Your task to perform on an android device: Look up the best rated 5.1 home theater speakers on Walmart. Image 0: 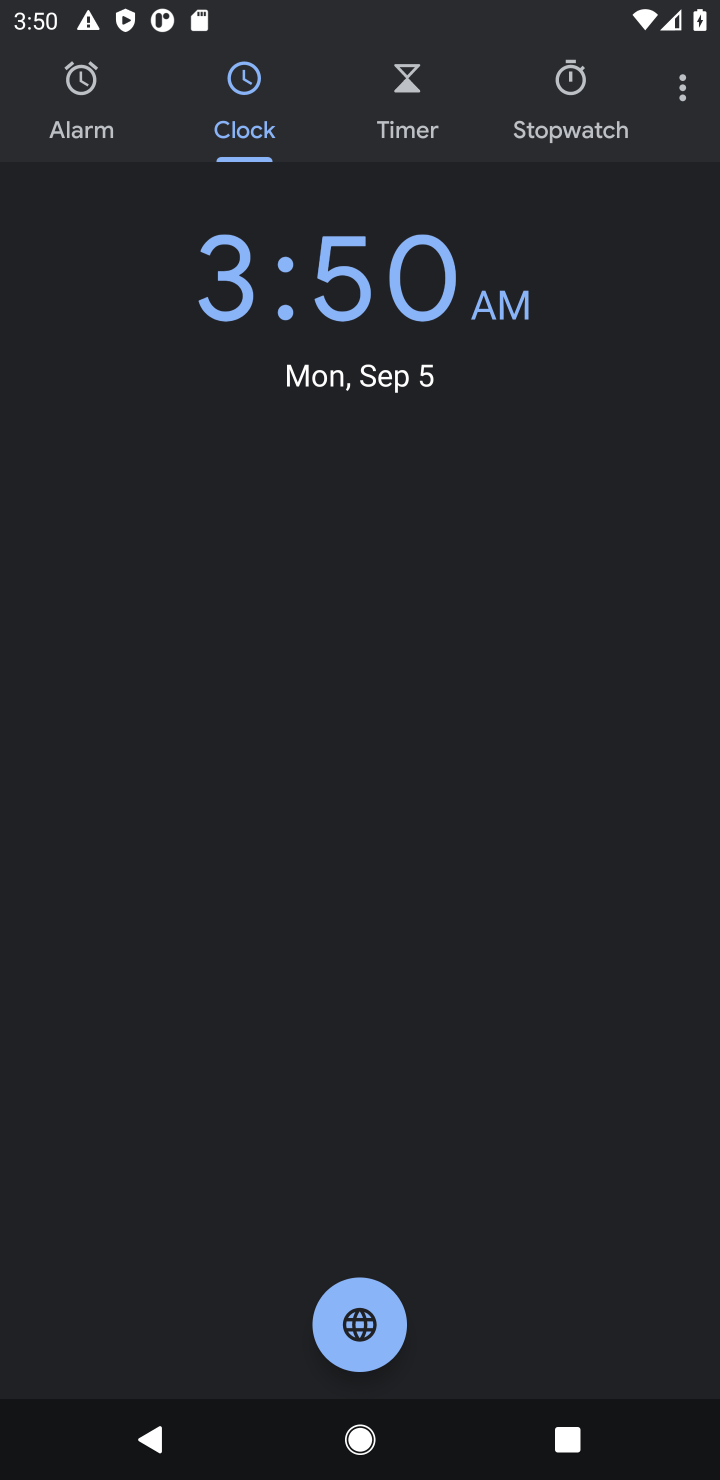
Step 0: press home button
Your task to perform on an android device: Look up the best rated 5.1 home theater speakers on Walmart. Image 1: 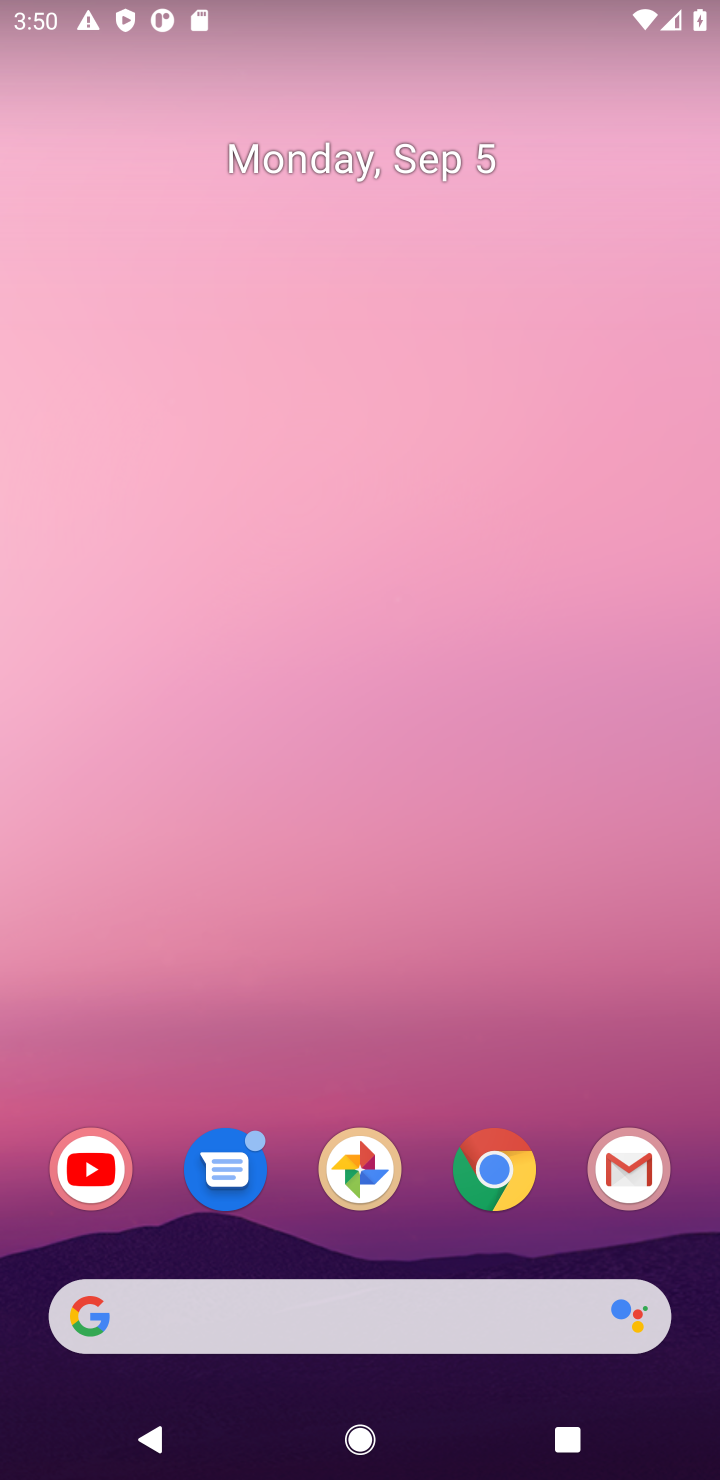
Step 1: click (505, 1170)
Your task to perform on an android device: Look up the best rated 5.1 home theater speakers on Walmart. Image 2: 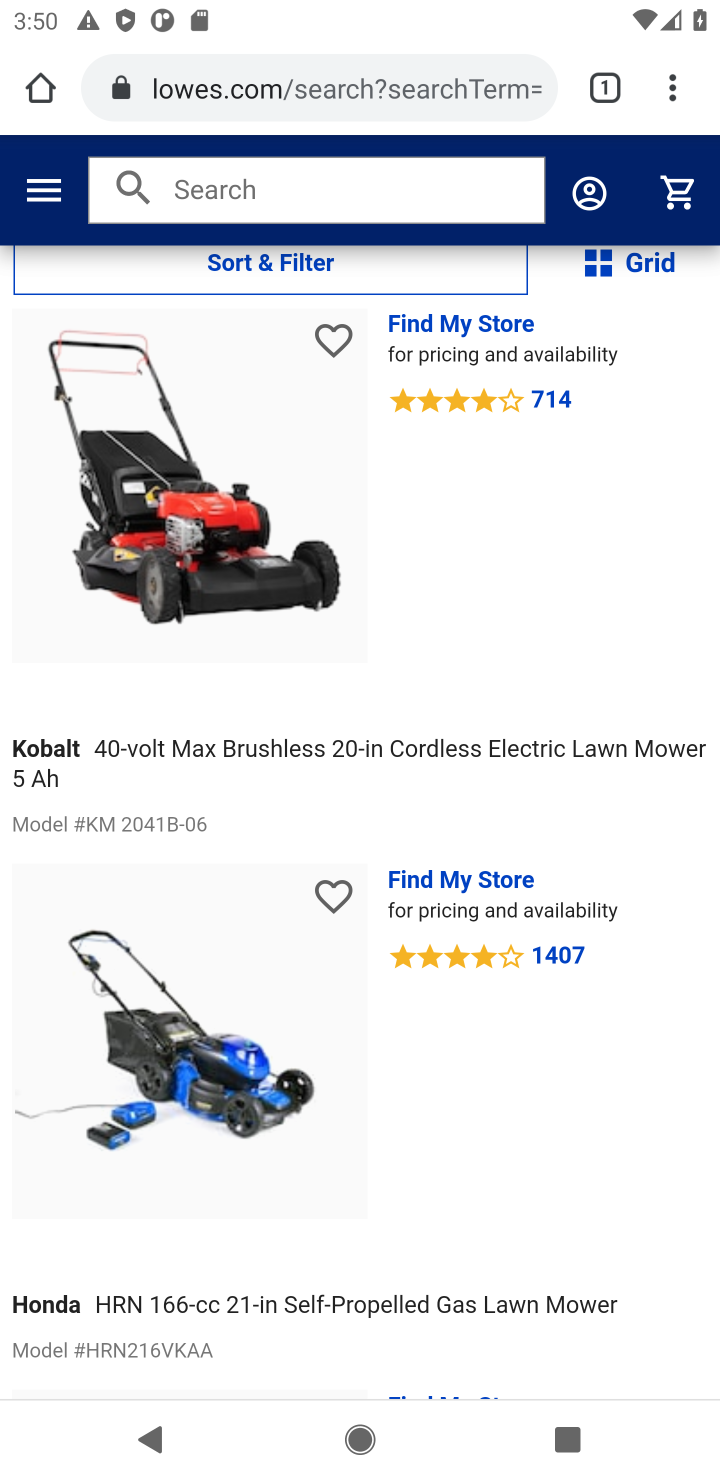
Step 2: click (301, 99)
Your task to perform on an android device: Look up the best rated 5.1 home theater speakers on Walmart. Image 3: 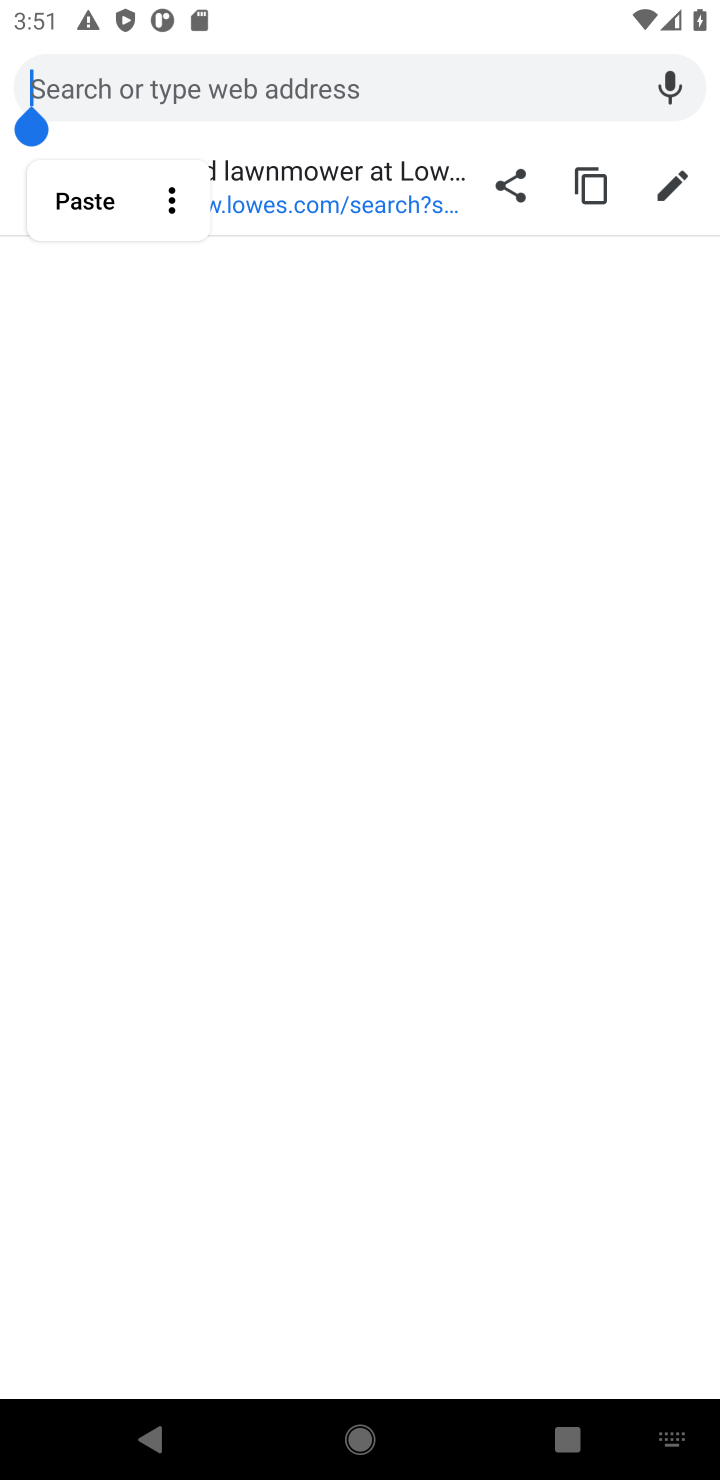
Step 3: type "Walmart."
Your task to perform on an android device: Look up the best rated 5.1 home theater speakers on Walmart. Image 4: 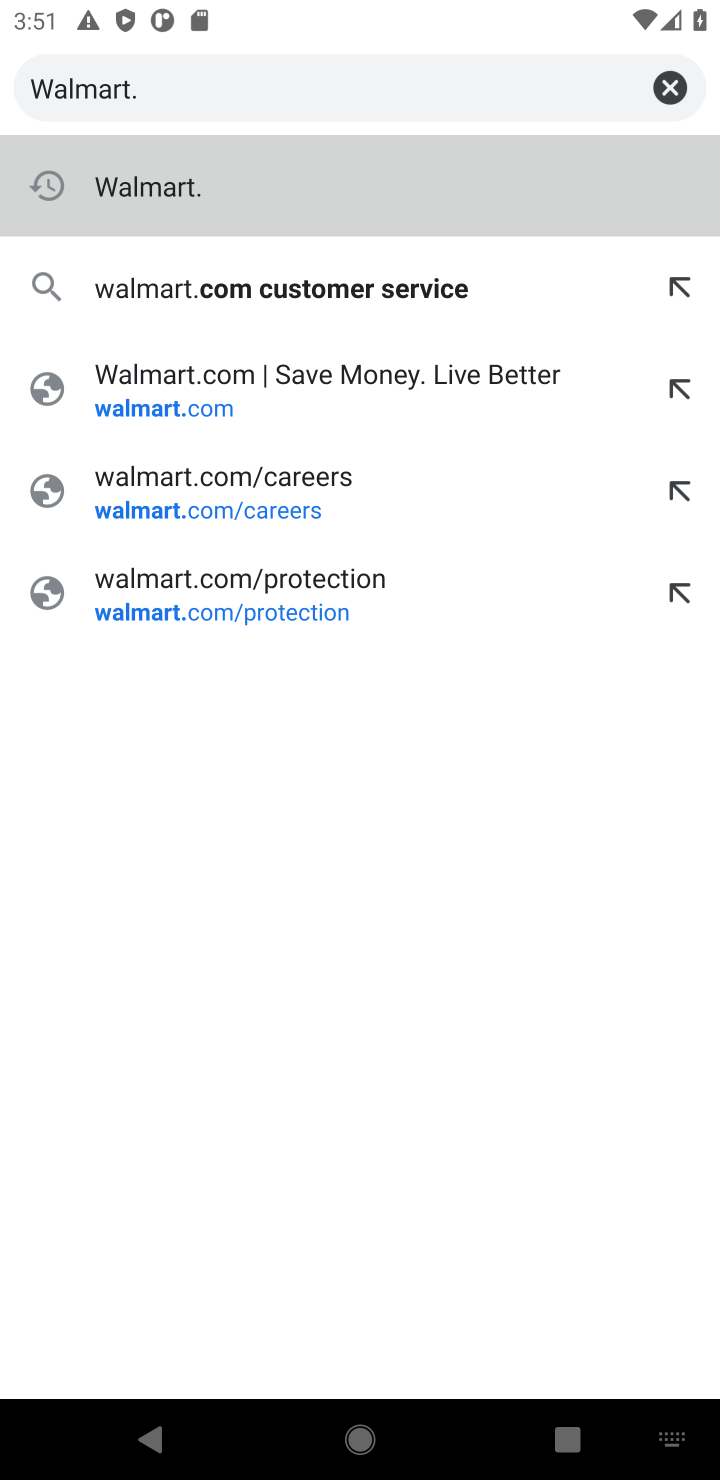
Step 4: click (119, 173)
Your task to perform on an android device: Look up the best rated 5.1 home theater speakers on Walmart. Image 5: 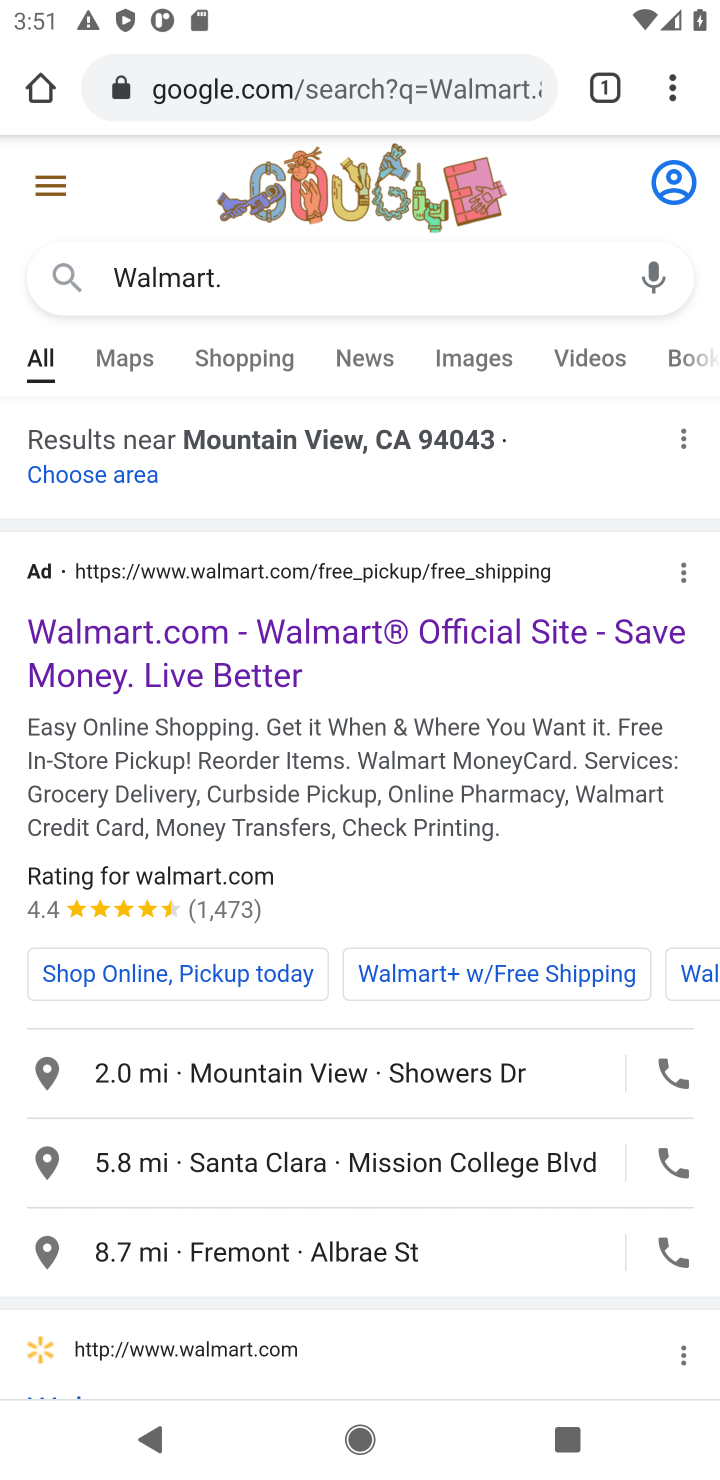
Step 5: drag from (416, 971) to (406, 219)
Your task to perform on an android device: Look up the best rated 5.1 home theater speakers on Walmart. Image 6: 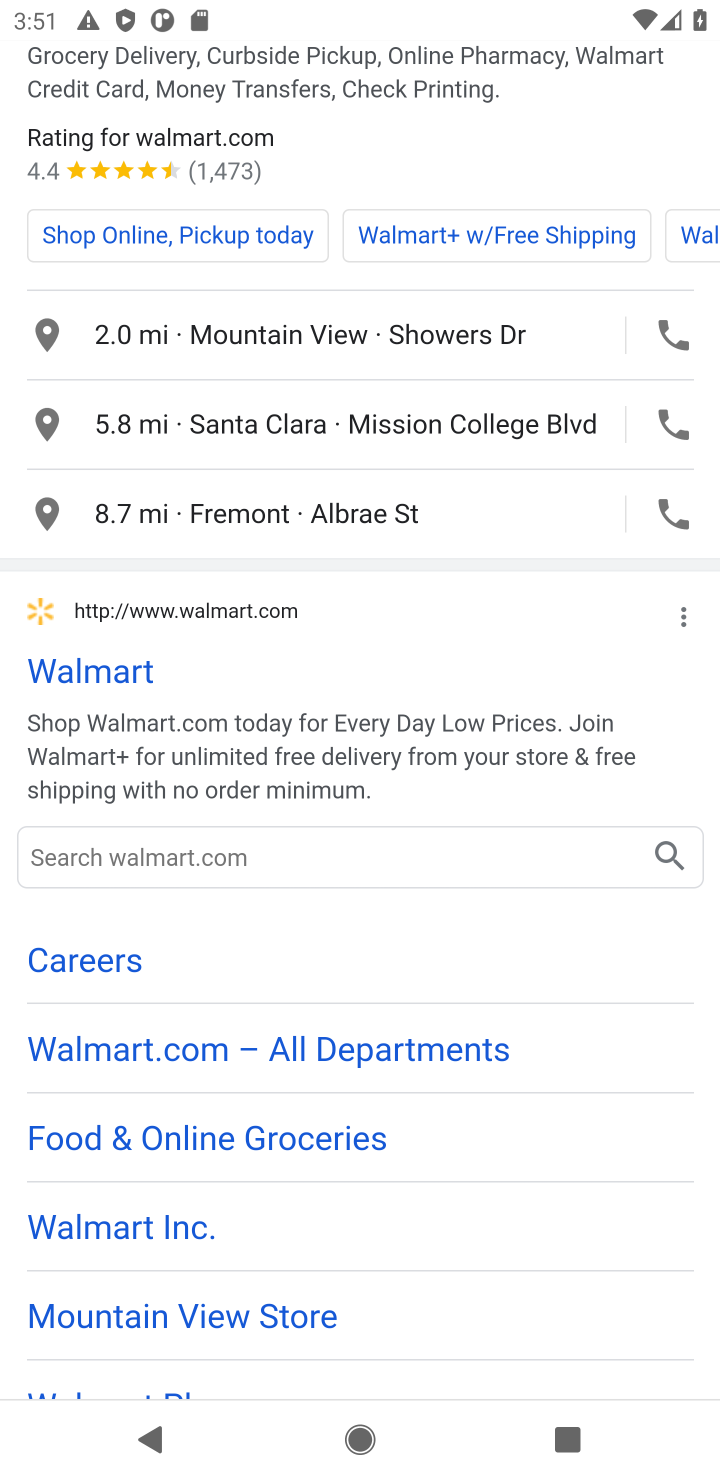
Step 6: click (80, 1316)
Your task to perform on an android device: Look up the best rated 5.1 home theater speakers on Walmart. Image 7: 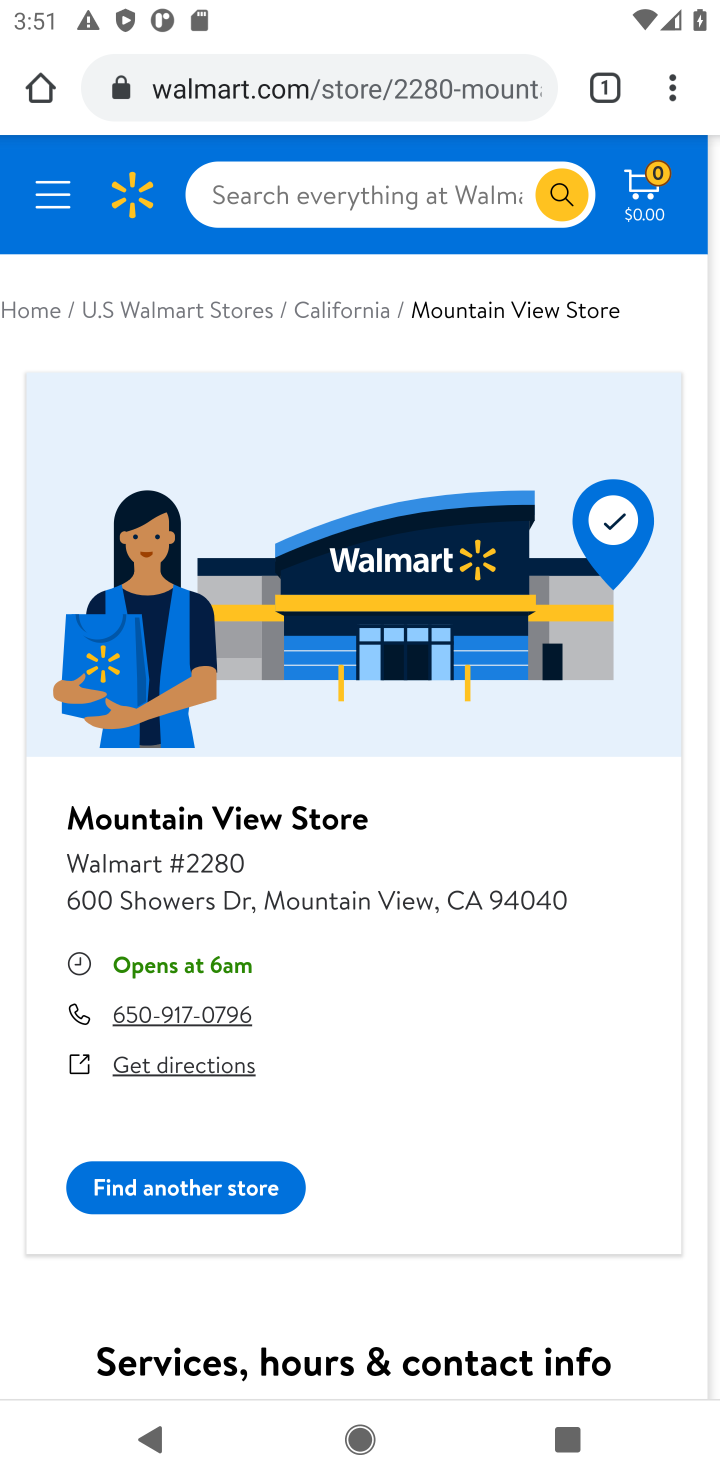
Step 7: click (339, 194)
Your task to perform on an android device: Look up the best rated 5.1 home theater speakers on Walmart. Image 8: 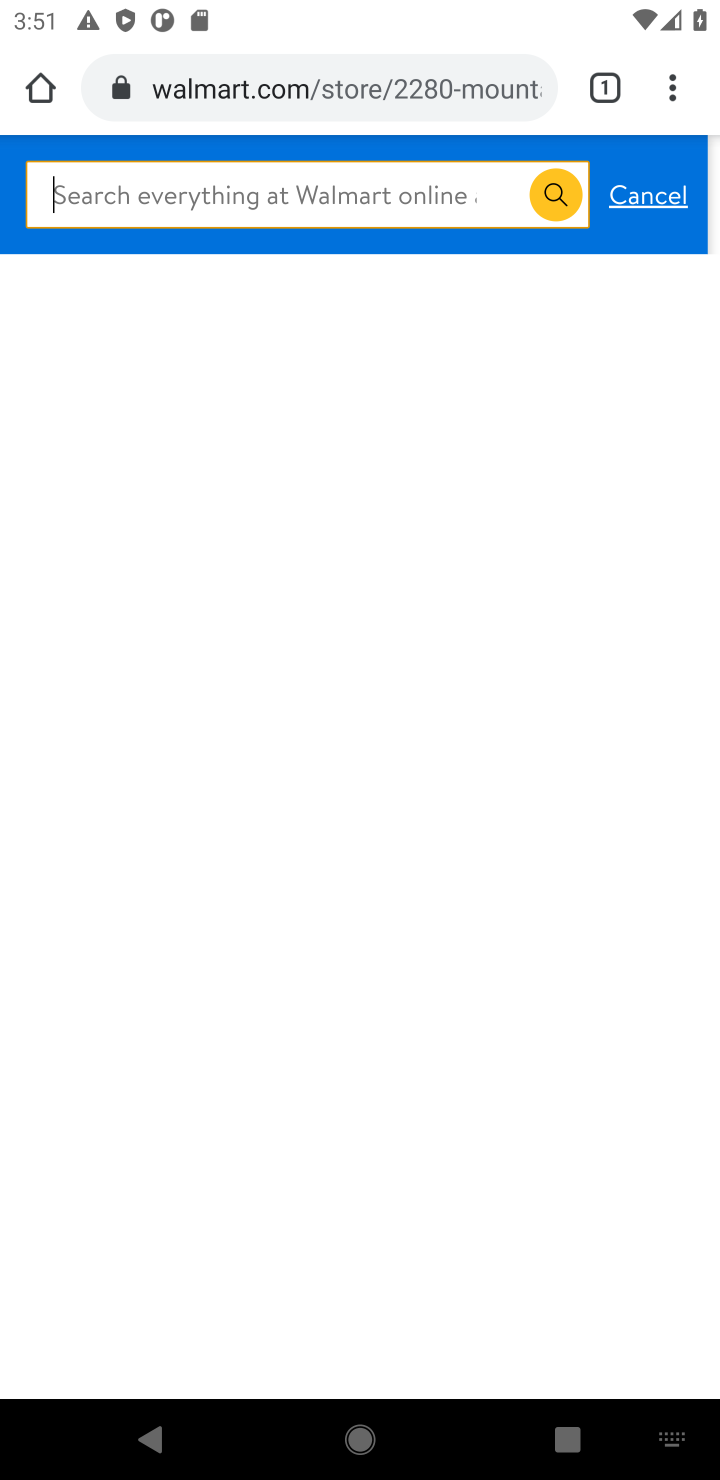
Step 8: type "best rated 5.1 home theater speakers"
Your task to perform on an android device: Look up the best rated 5.1 home theater speakers on Walmart. Image 9: 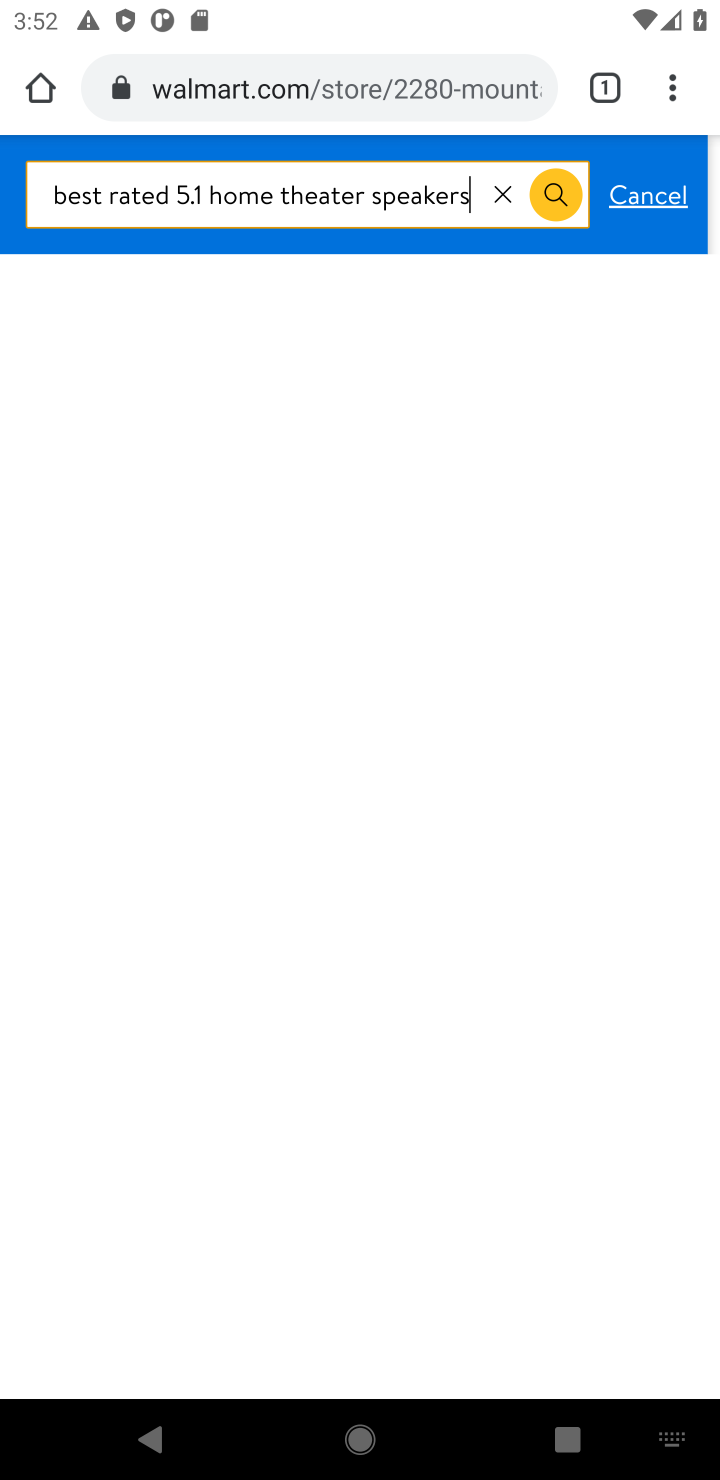
Step 9: click (562, 194)
Your task to perform on an android device: Look up the best rated 5.1 home theater speakers on Walmart. Image 10: 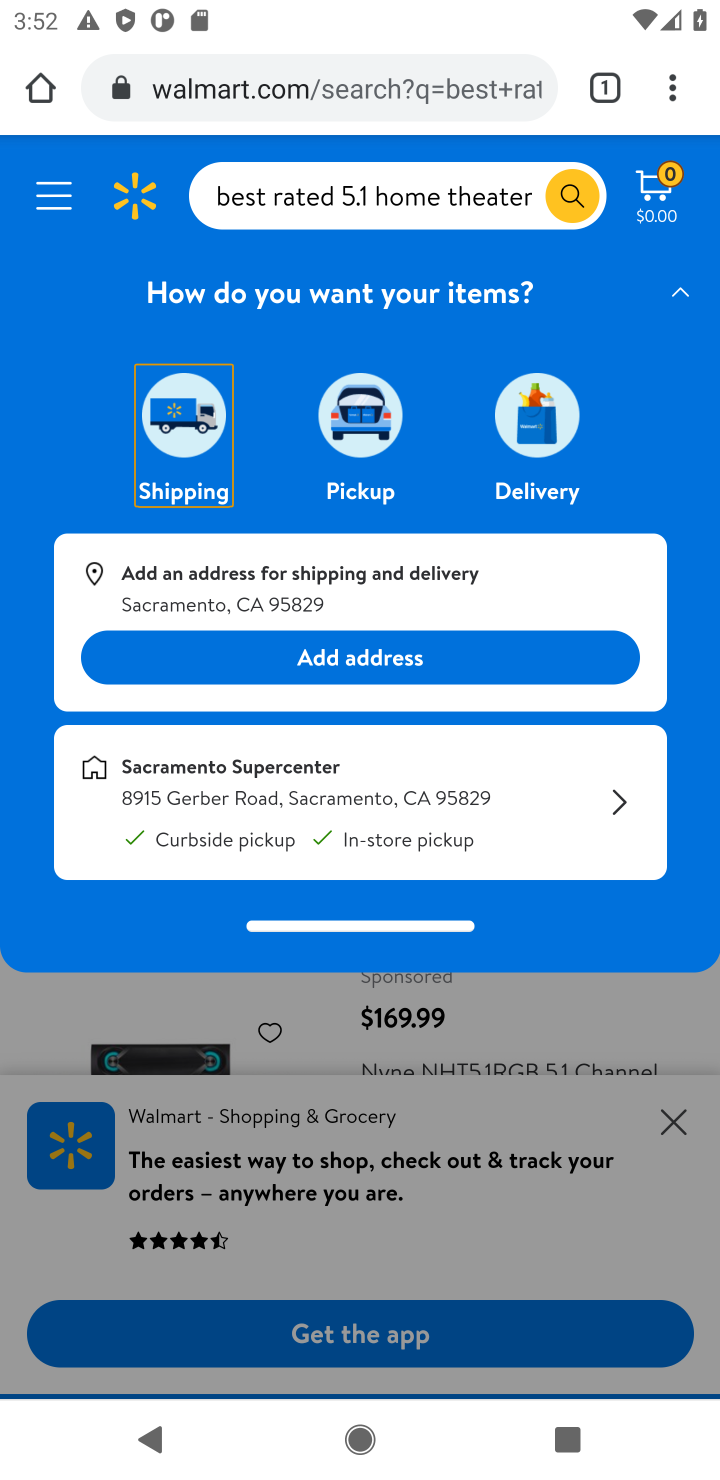
Step 10: drag from (623, 956) to (606, 317)
Your task to perform on an android device: Look up the best rated 5.1 home theater speakers on Walmart. Image 11: 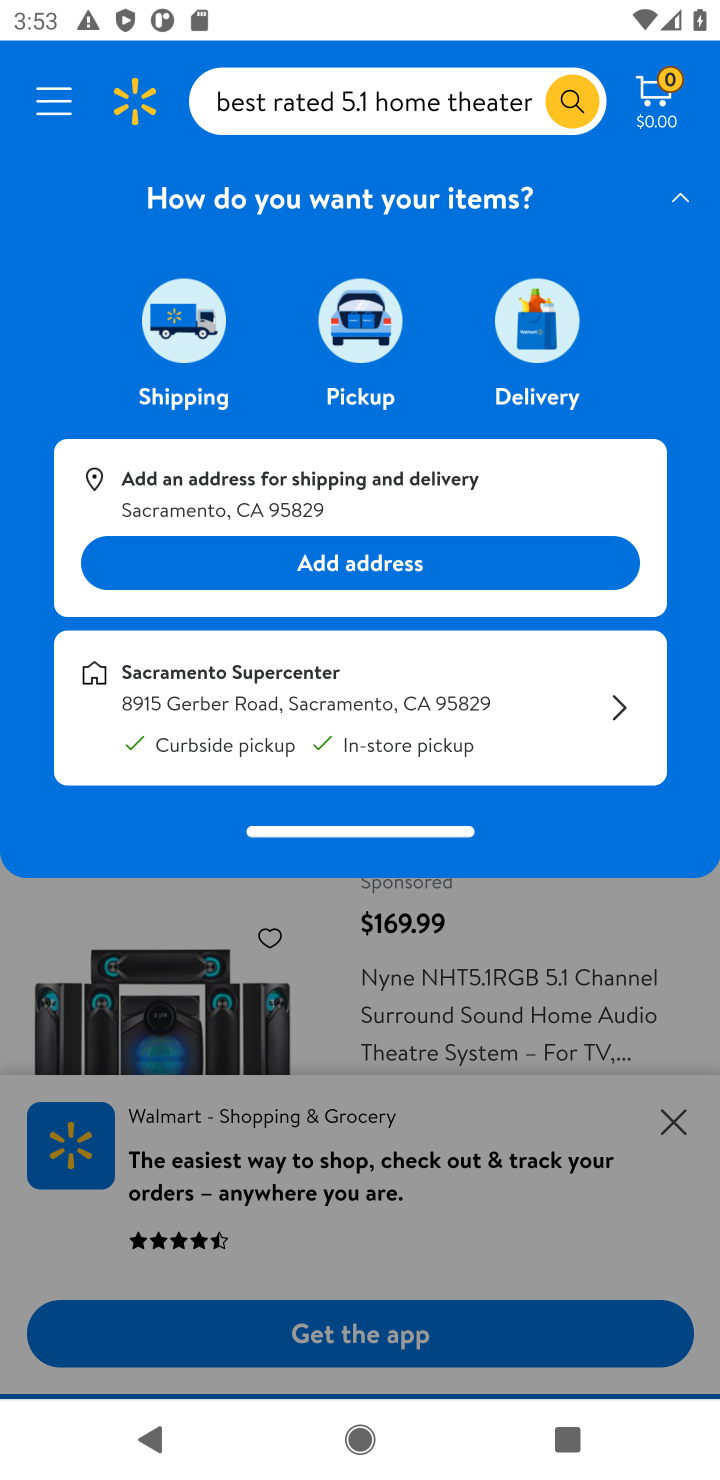
Step 11: drag from (717, 732) to (676, 86)
Your task to perform on an android device: Look up the best rated 5.1 home theater speakers on Walmart. Image 12: 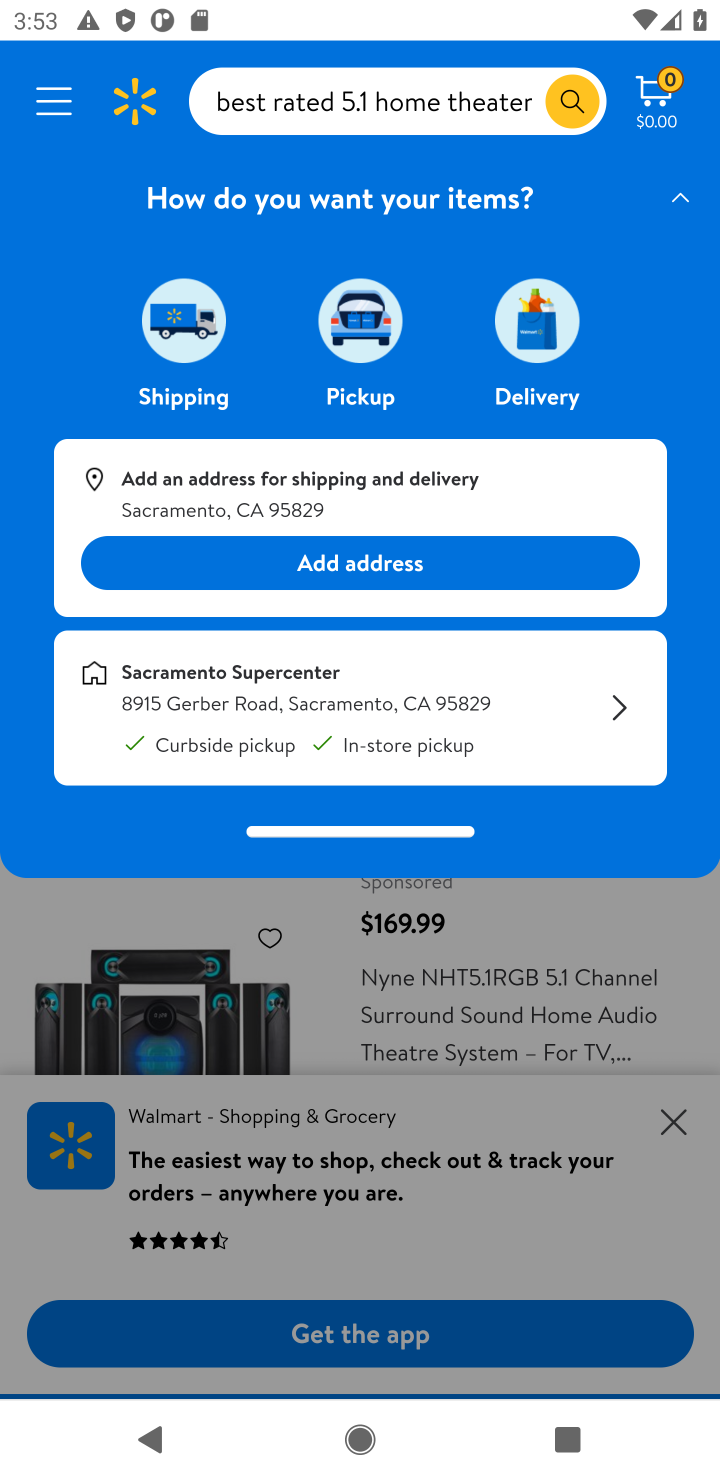
Step 12: drag from (675, 871) to (604, 166)
Your task to perform on an android device: Look up the best rated 5.1 home theater speakers on Walmart. Image 13: 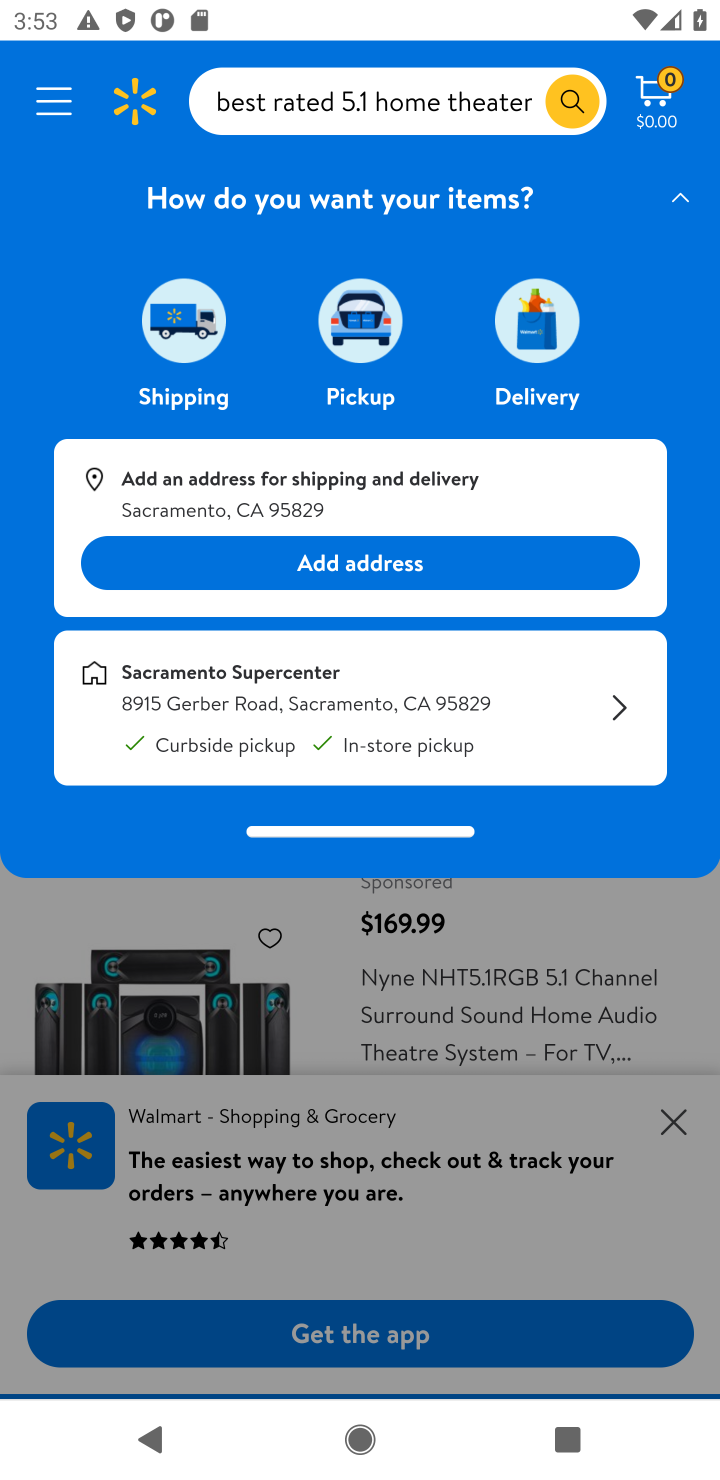
Step 13: click (562, 98)
Your task to perform on an android device: Look up the best rated 5.1 home theater speakers on Walmart. Image 14: 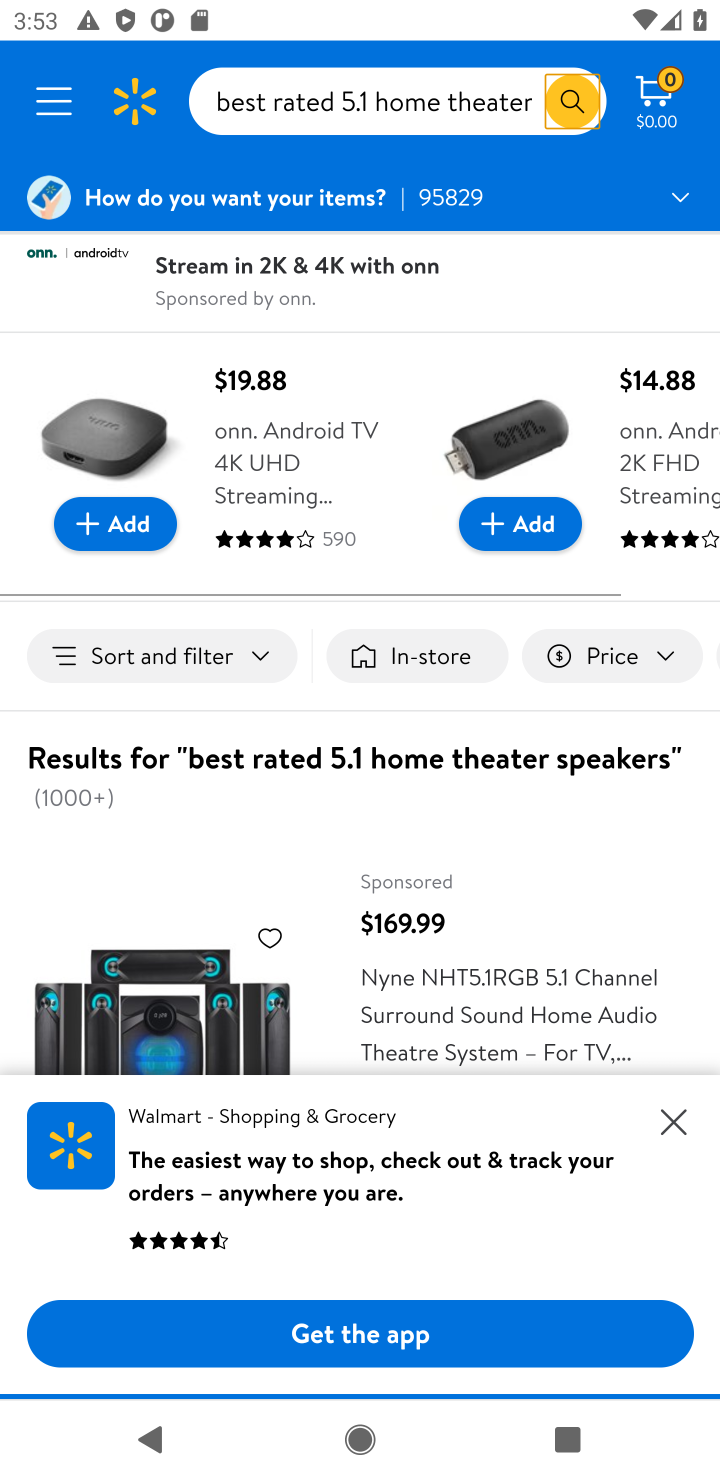
Step 14: task complete